Your task to perform on an android device: turn off improve location accuracy Image 0: 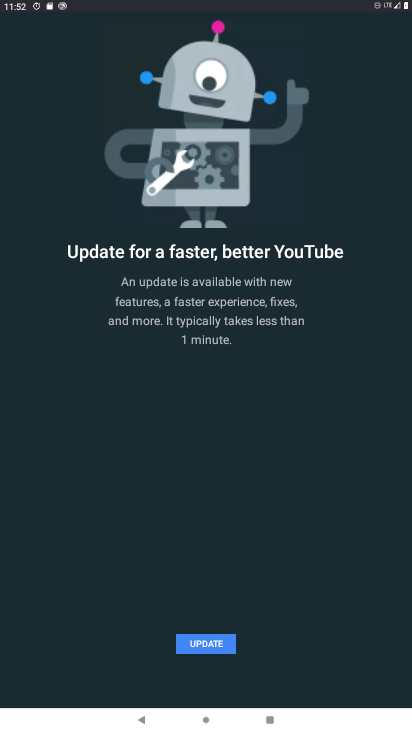
Step 0: press back button
Your task to perform on an android device: turn off improve location accuracy Image 1: 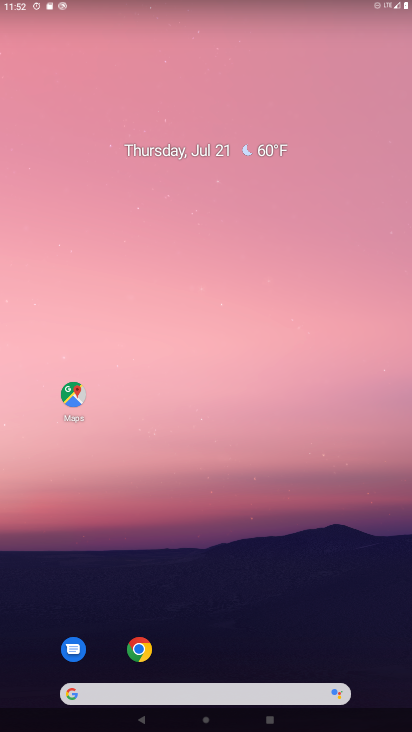
Step 1: drag from (382, 695) to (284, 98)
Your task to perform on an android device: turn off improve location accuracy Image 2: 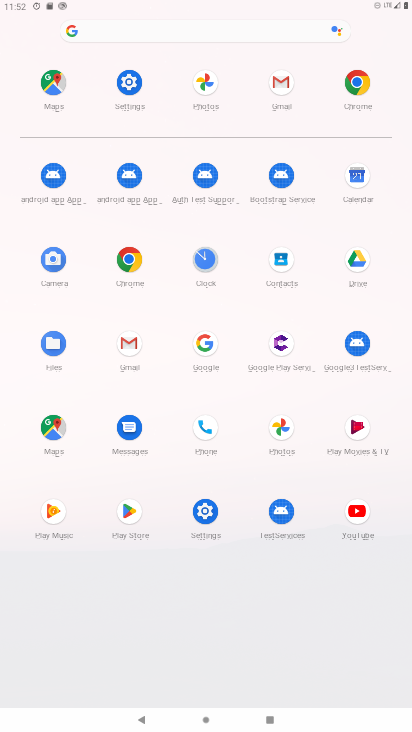
Step 2: click (123, 80)
Your task to perform on an android device: turn off improve location accuracy Image 3: 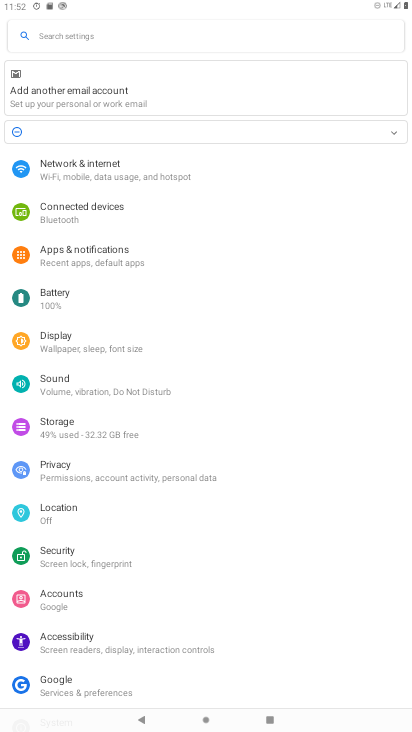
Step 3: click (46, 517)
Your task to perform on an android device: turn off improve location accuracy Image 4: 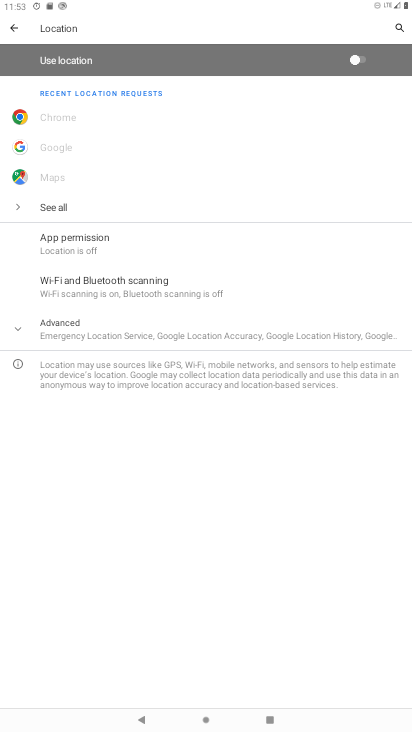
Step 4: click (14, 336)
Your task to perform on an android device: turn off improve location accuracy Image 5: 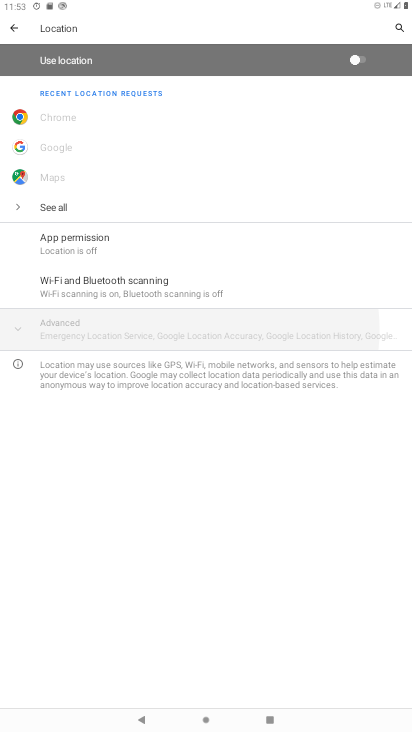
Step 5: click (14, 325)
Your task to perform on an android device: turn off improve location accuracy Image 6: 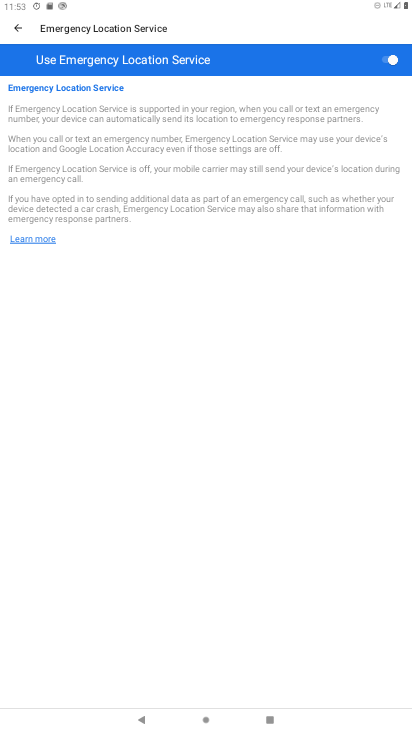
Step 6: click (15, 27)
Your task to perform on an android device: turn off improve location accuracy Image 7: 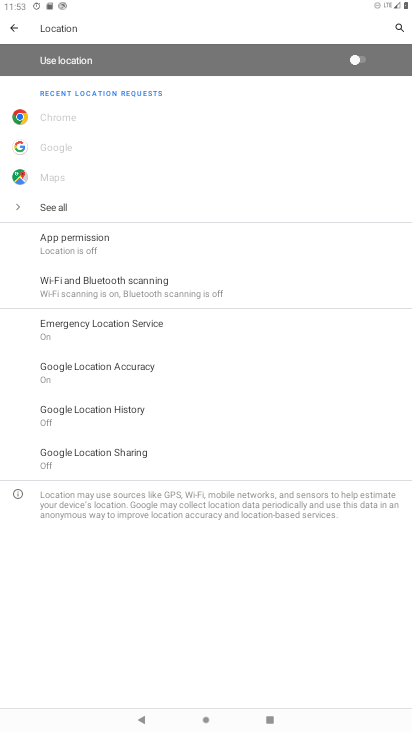
Step 7: click (108, 371)
Your task to perform on an android device: turn off improve location accuracy Image 8: 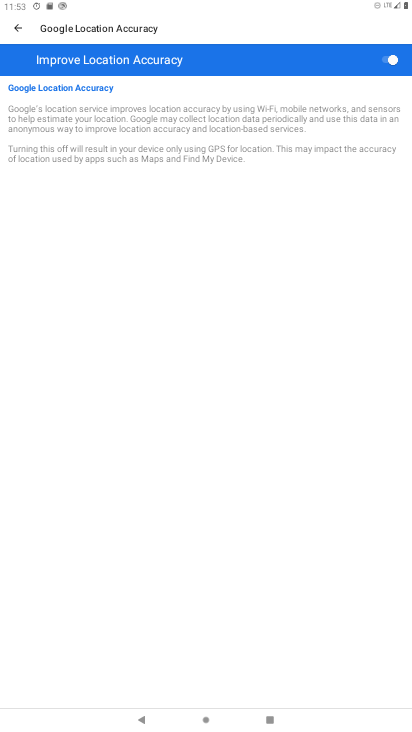
Step 8: click (381, 56)
Your task to perform on an android device: turn off improve location accuracy Image 9: 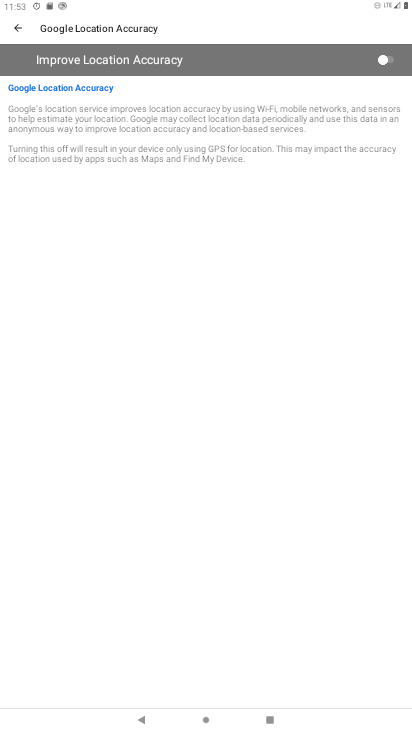
Step 9: task complete